Your task to perform on an android device: Open calendar and show me the third week of next month Image 0: 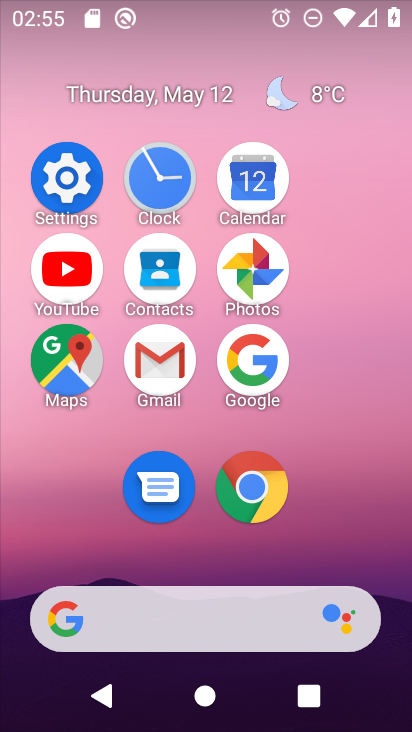
Step 0: click (251, 171)
Your task to perform on an android device: Open calendar and show me the third week of next month Image 1: 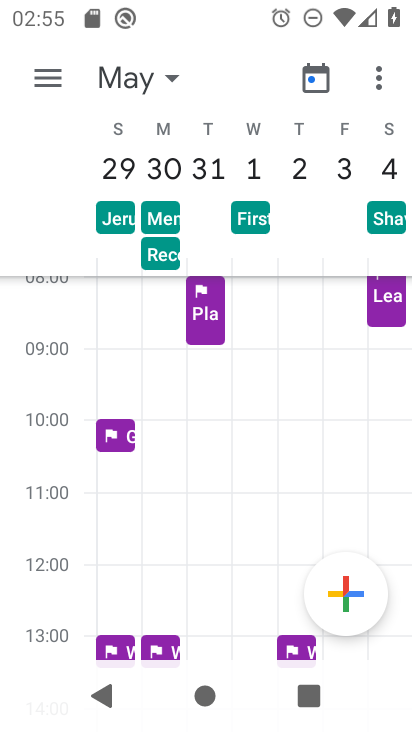
Step 1: click (180, 80)
Your task to perform on an android device: Open calendar and show me the third week of next month Image 2: 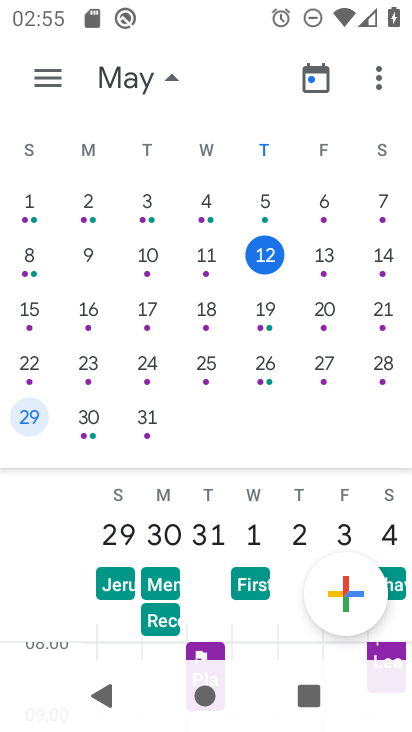
Step 2: drag from (382, 278) to (0, 305)
Your task to perform on an android device: Open calendar and show me the third week of next month Image 3: 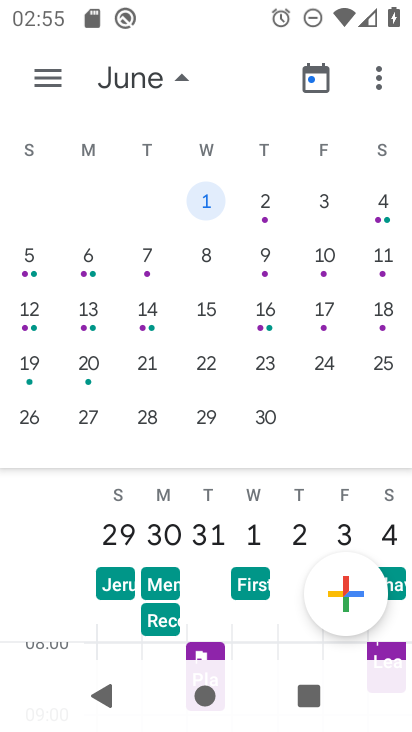
Step 3: click (47, 93)
Your task to perform on an android device: Open calendar and show me the third week of next month Image 4: 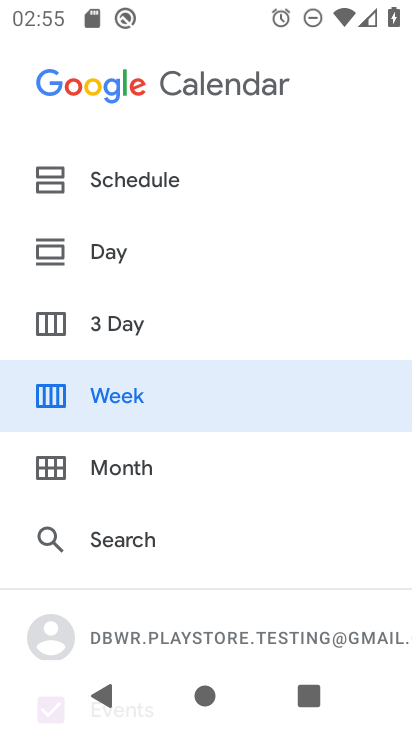
Step 4: click (177, 392)
Your task to perform on an android device: Open calendar and show me the third week of next month Image 5: 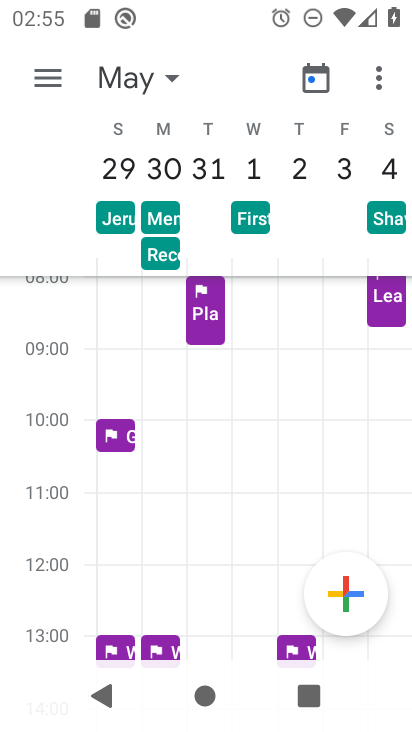
Step 5: task complete